Your task to perform on an android device: change alarm snooze length Image 0: 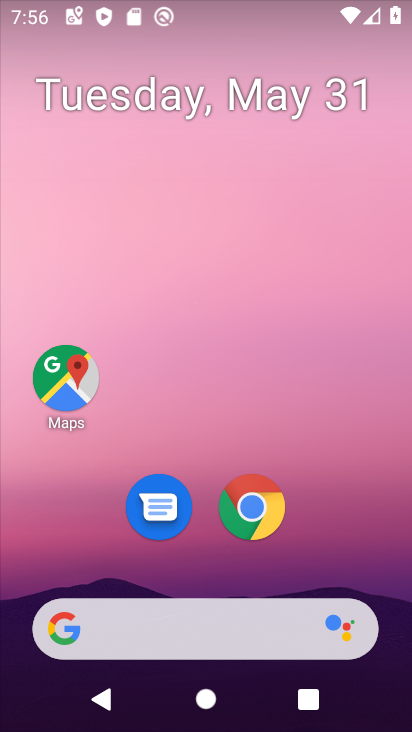
Step 0: drag from (326, 520) to (175, 192)
Your task to perform on an android device: change alarm snooze length Image 1: 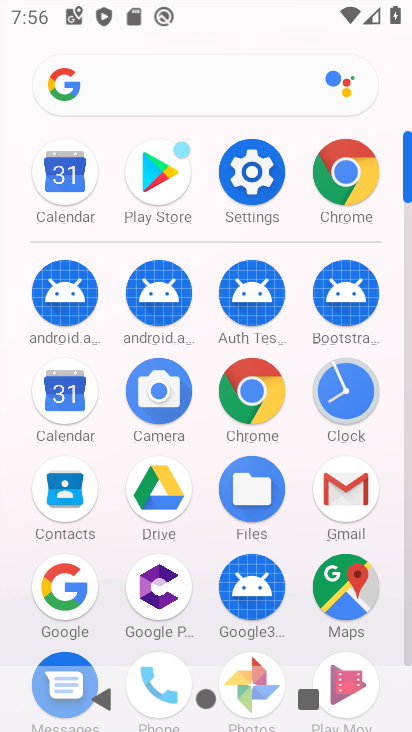
Step 1: click (344, 388)
Your task to perform on an android device: change alarm snooze length Image 2: 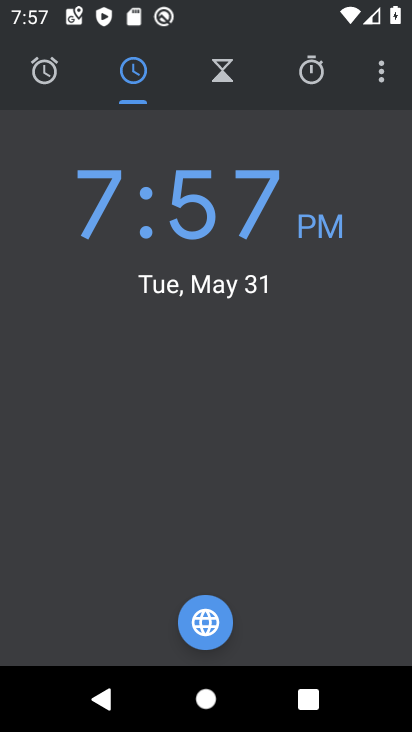
Step 2: click (384, 71)
Your task to perform on an android device: change alarm snooze length Image 3: 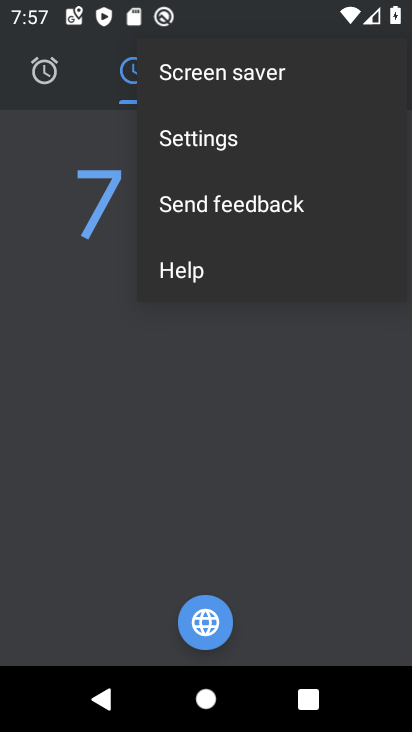
Step 3: click (259, 130)
Your task to perform on an android device: change alarm snooze length Image 4: 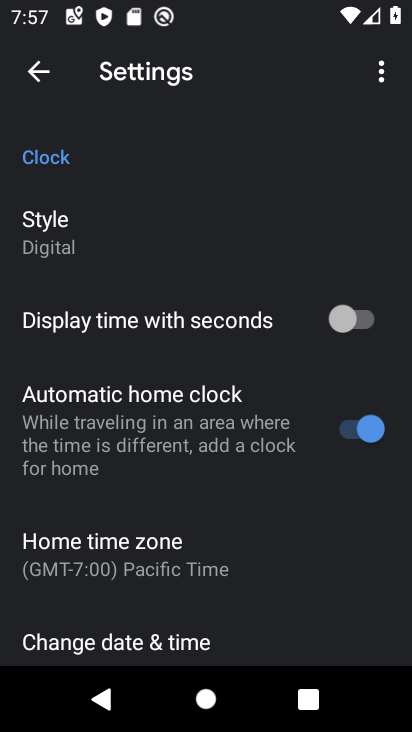
Step 4: drag from (143, 506) to (98, 176)
Your task to perform on an android device: change alarm snooze length Image 5: 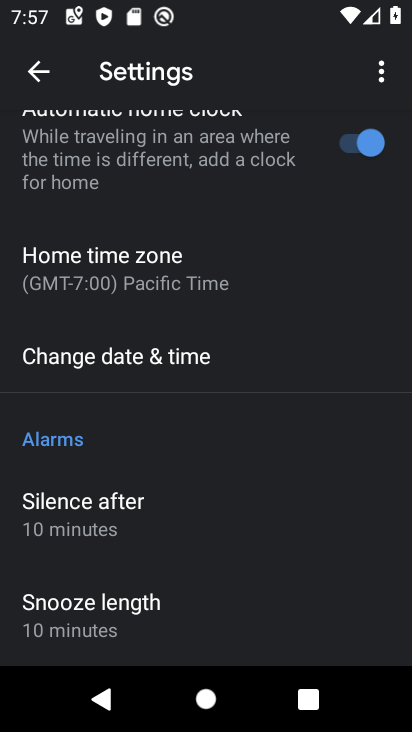
Step 5: click (118, 596)
Your task to perform on an android device: change alarm snooze length Image 6: 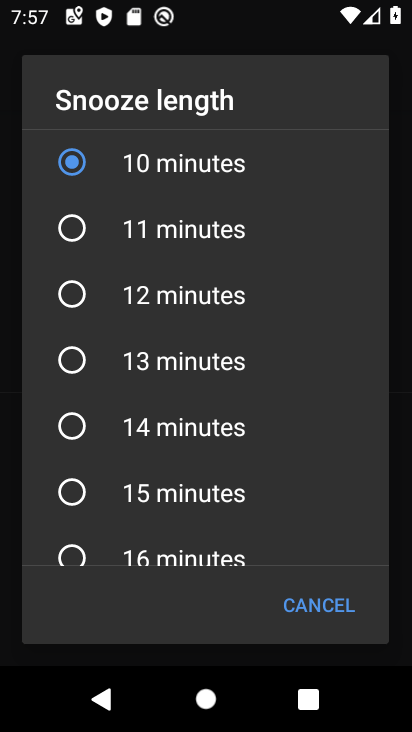
Step 6: click (115, 234)
Your task to perform on an android device: change alarm snooze length Image 7: 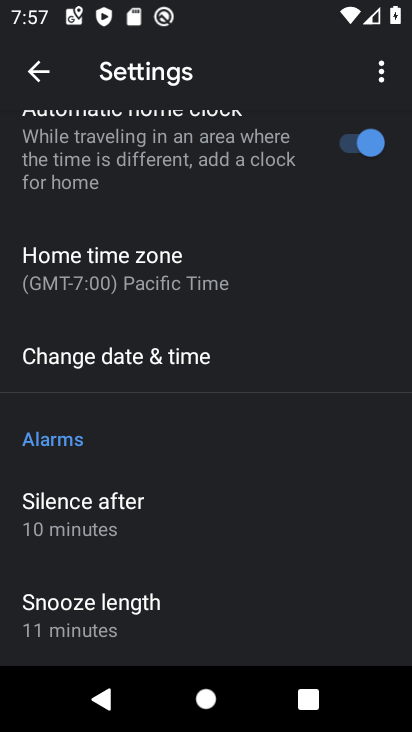
Step 7: task complete